Your task to perform on an android device: Go to accessibility settings Image 0: 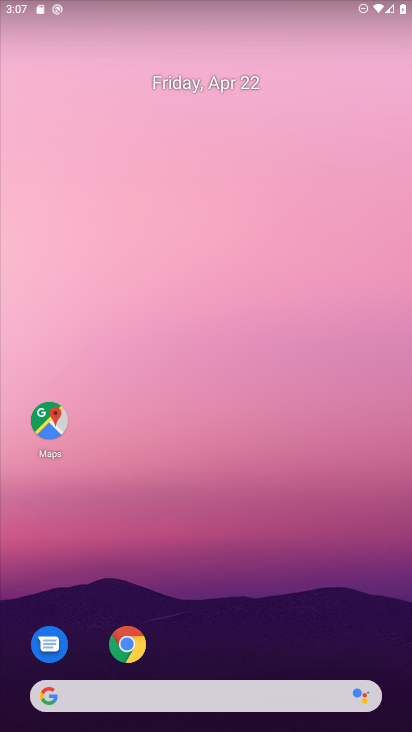
Step 0: drag from (257, 646) to (241, 99)
Your task to perform on an android device: Go to accessibility settings Image 1: 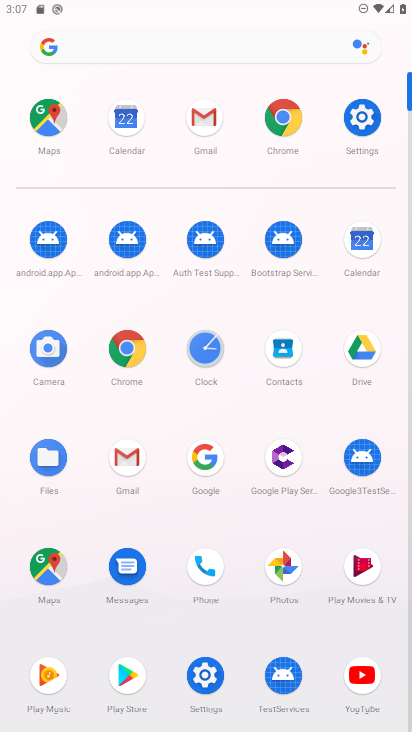
Step 1: click (373, 96)
Your task to perform on an android device: Go to accessibility settings Image 2: 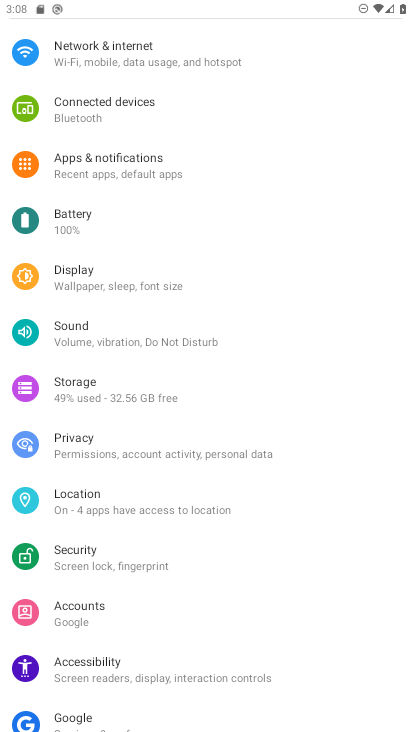
Step 2: drag from (140, 149) to (146, 348)
Your task to perform on an android device: Go to accessibility settings Image 3: 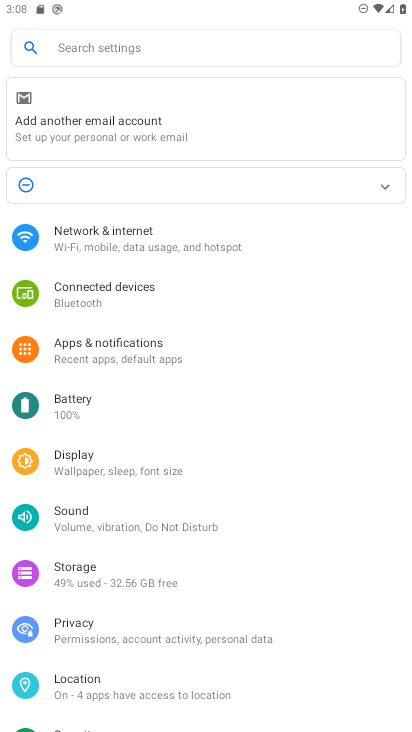
Step 3: drag from (128, 621) to (226, 118)
Your task to perform on an android device: Go to accessibility settings Image 4: 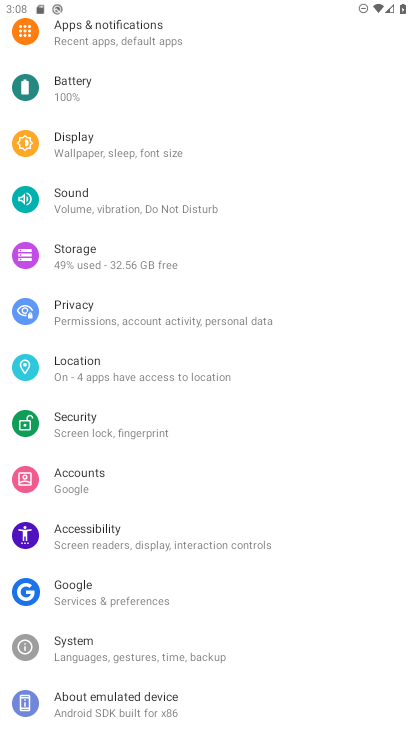
Step 4: click (103, 537)
Your task to perform on an android device: Go to accessibility settings Image 5: 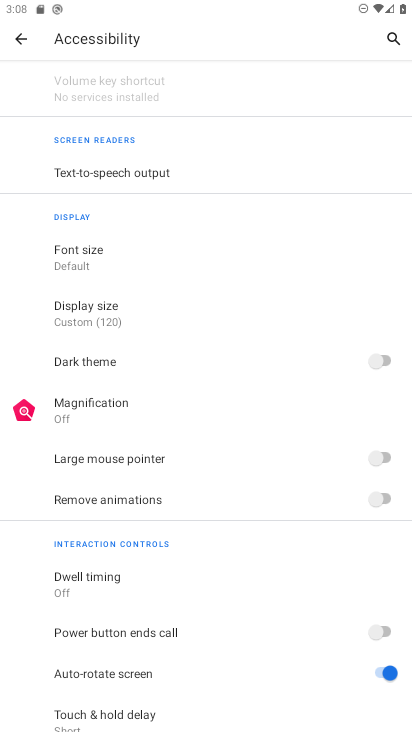
Step 5: task complete